Your task to perform on an android device: Search for alienware area 51 on ebay.com, select the first entry, and add it to the cart. Image 0: 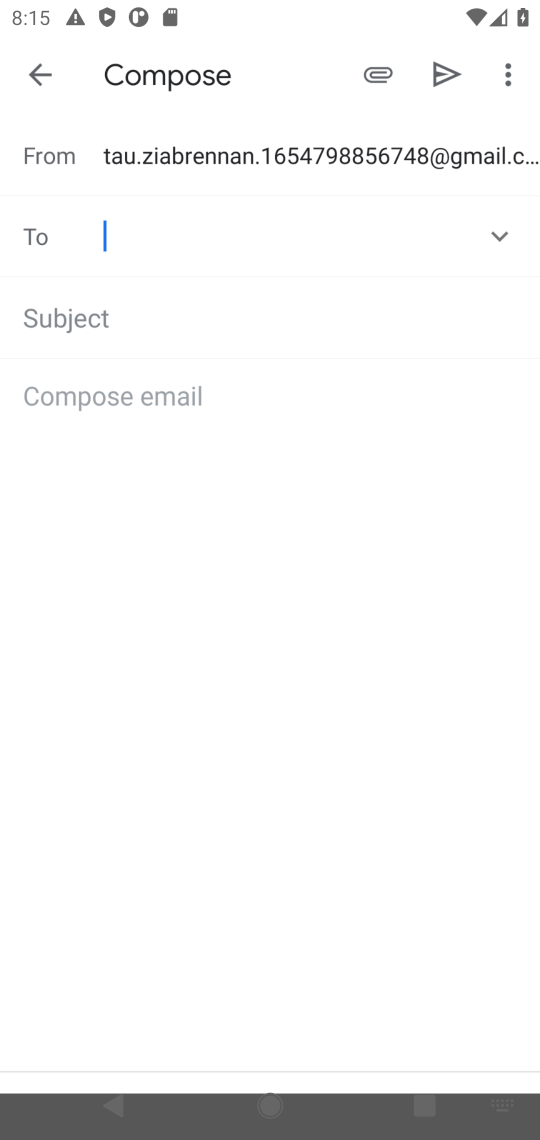
Step 0: drag from (292, 960) to (330, 214)
Your task to perform on an android device: Search for alienware area 51 on ebay.com, select the first entry, and add it to the cart. Image 1: 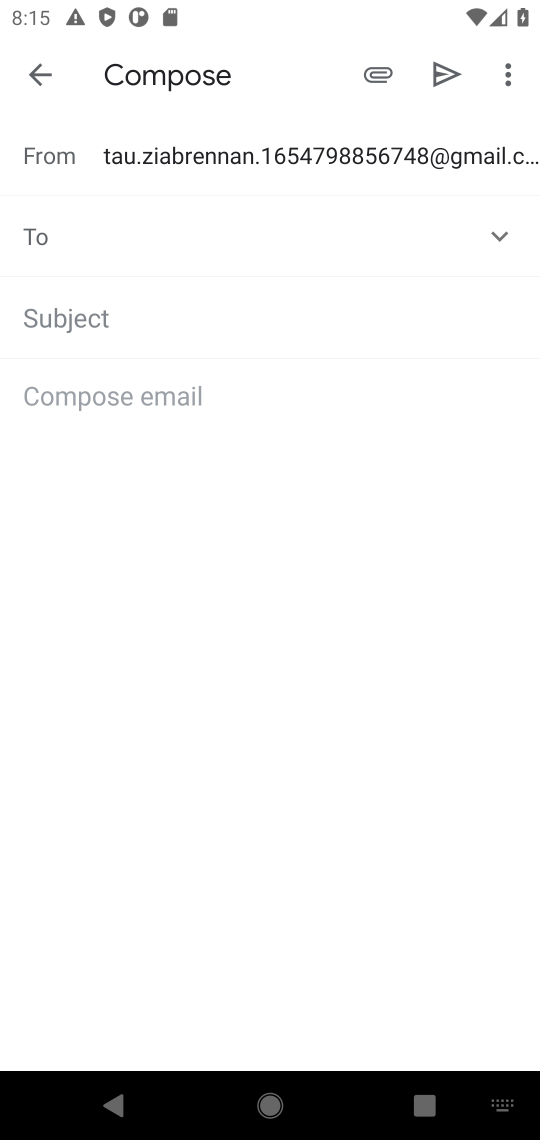
Step 1: press home button
Your task to perform on an android device: Search for alienware area 51 on ebay.com, select the first entry, and add it to the cart. Image 2: 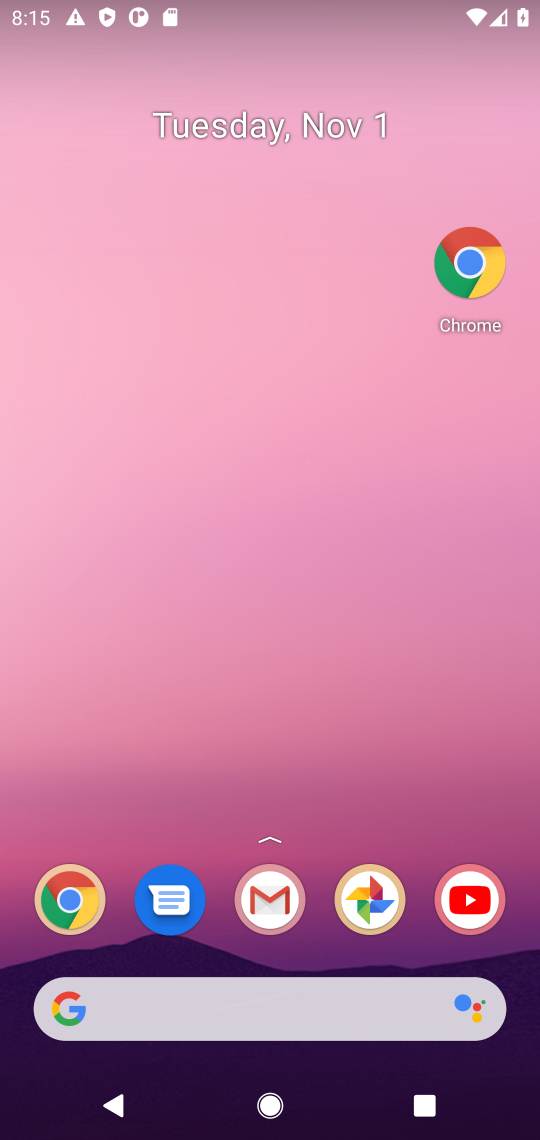
Step 2: drag from (306, 911) to (393, 334)
Your task to perform on an android device: Search for alienware area 51 on ebay.com, select the first entry, and add it to the cart. Image 3: 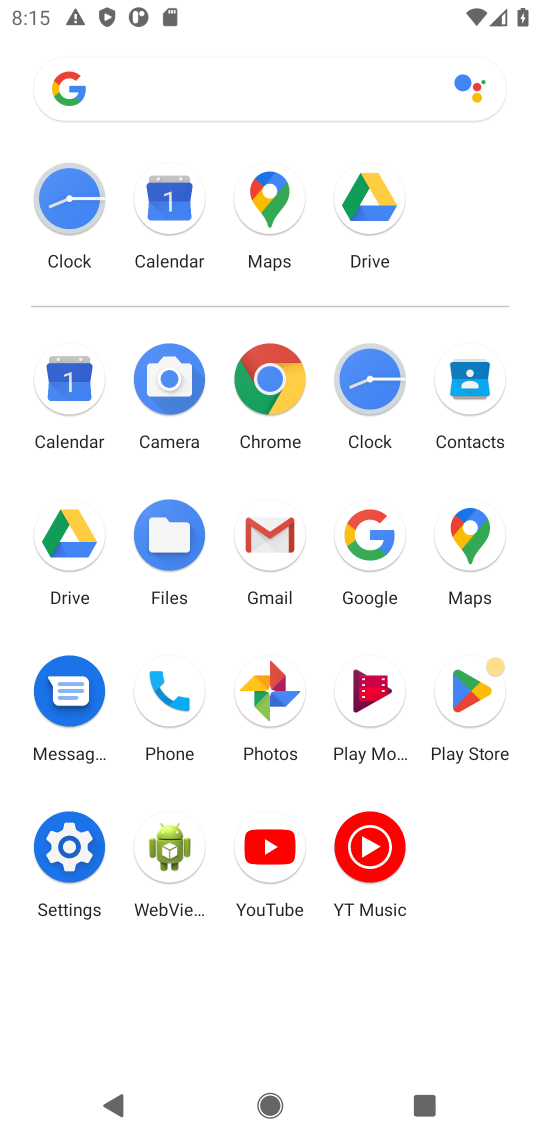
Step 3: click (262, 379)
Your task to perform on an android device: Search for alienware area 51 on ebay.com, select the first entry, and add it to the cart. Image 4: 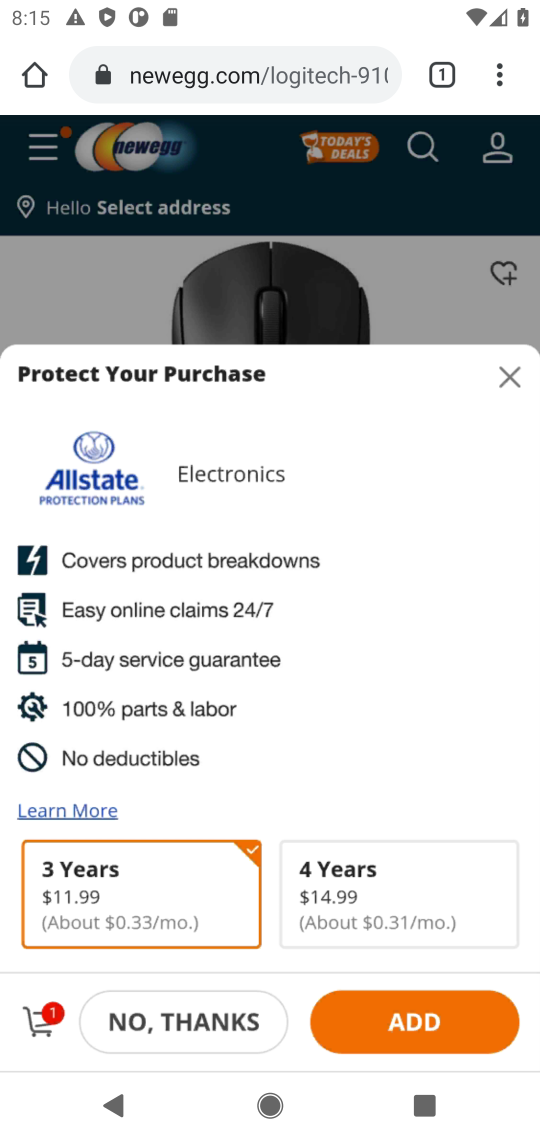
Step 4: click (311, 61)
Your task to perform on an android device: Search for alienware area 51 on ebay.com, select the first entry, and add it to the cart. Image 5: 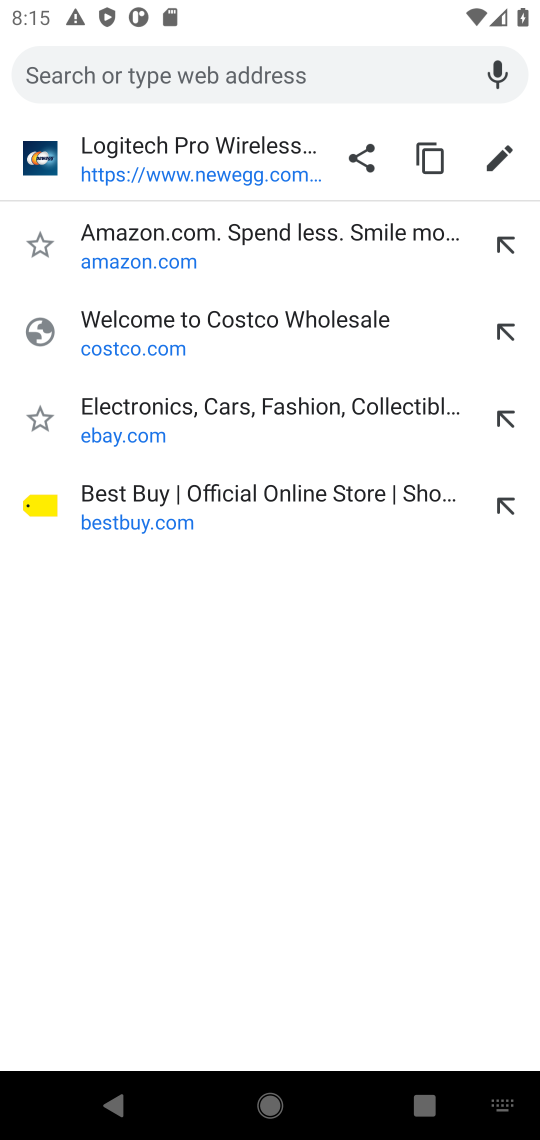
Step 5: type "ebay.com"
Your task to perform on an android device: Search for alienware area 51 on ebay.com, select the first entry, and add it to the cart. Image 6: 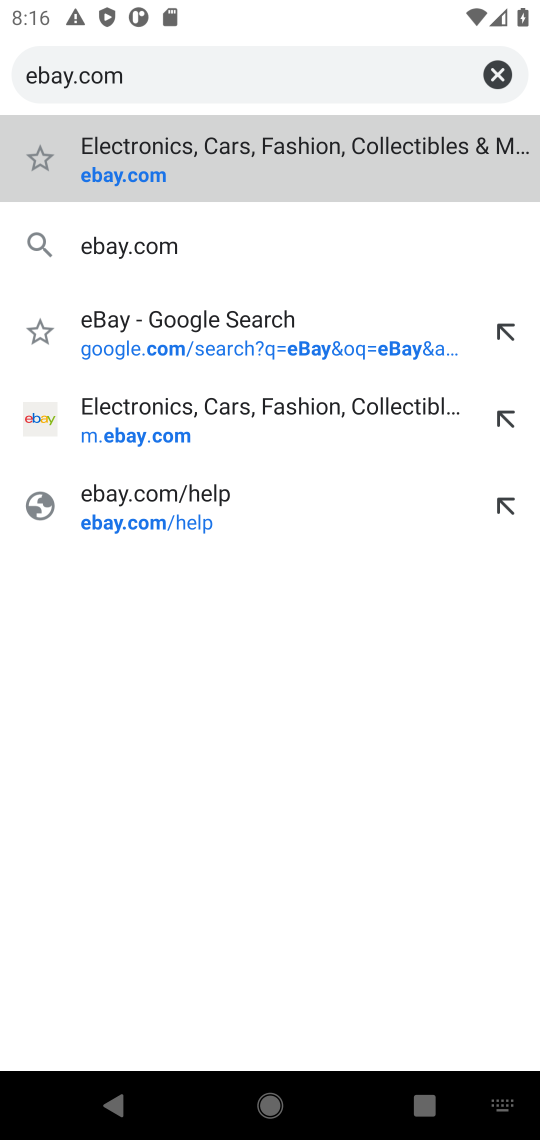
Step 6: press enter
Your task to perform on an android device: Search for alienware area 51 on ebay.com, select the first entry, and add it to the cart. Image 7: 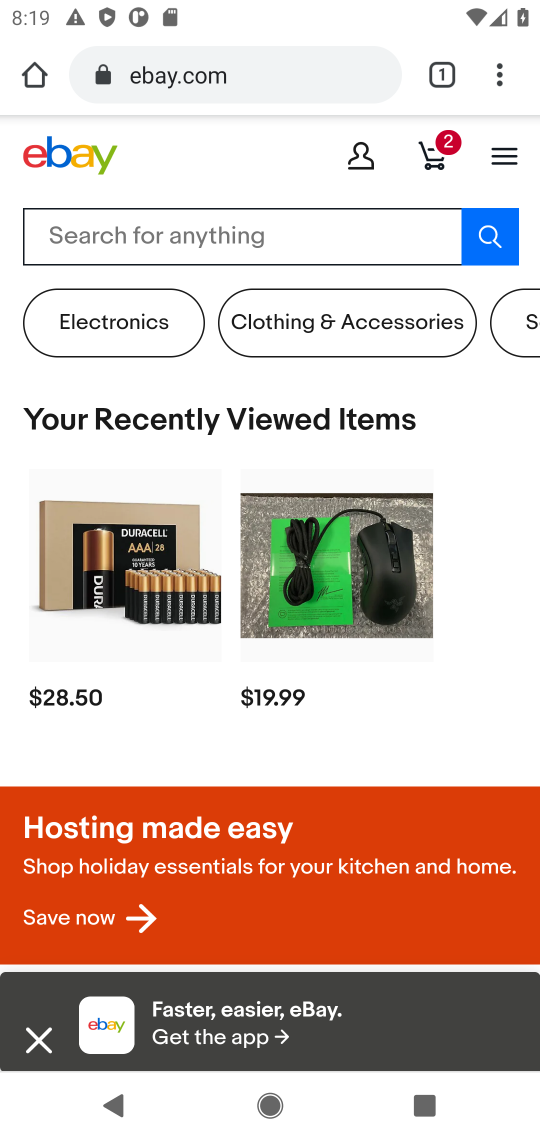
Step 7: click (283, 245)
Your task to perform on an android device: Search for alienware area 51 on ebay.com, select the first entry, and add it to the cart. Image 8: 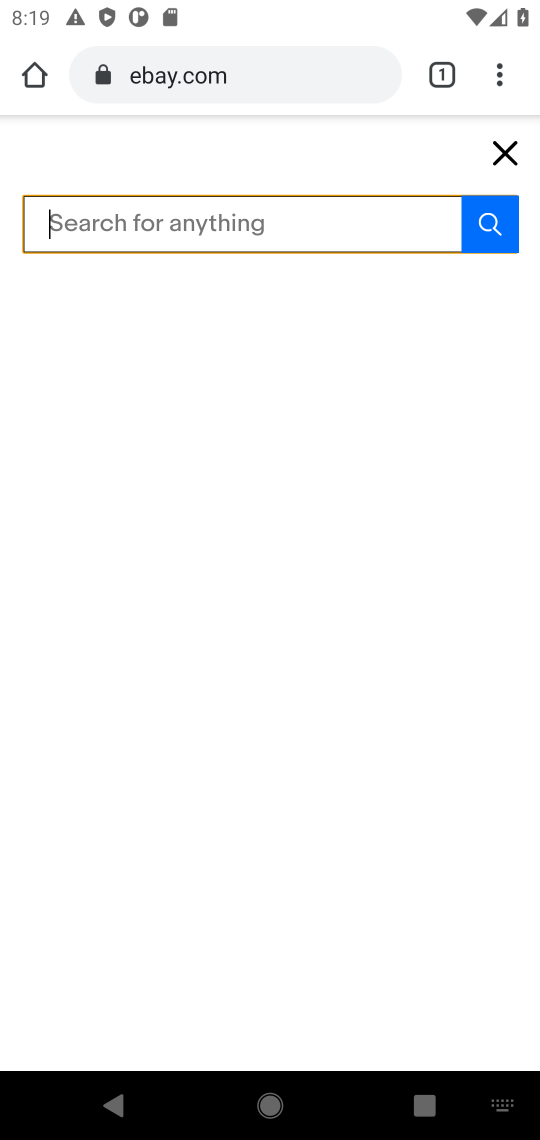
Step 8: type "alienware area 51"
Your task to perform on an android device: Search for alienware area 51 on ebay.com, select the first entry, and add it to the cart. Image 9: 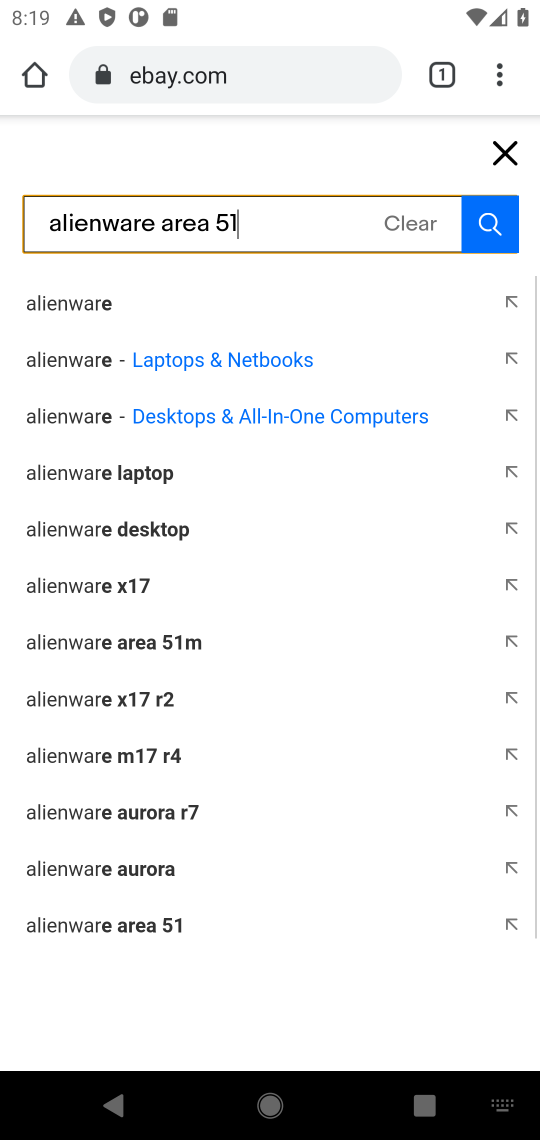
Step 9: press enter
Your task to perform on an android device: Search for alienware area 51 on ebay.com, select the first entry, and add it to the cart. Image 10: 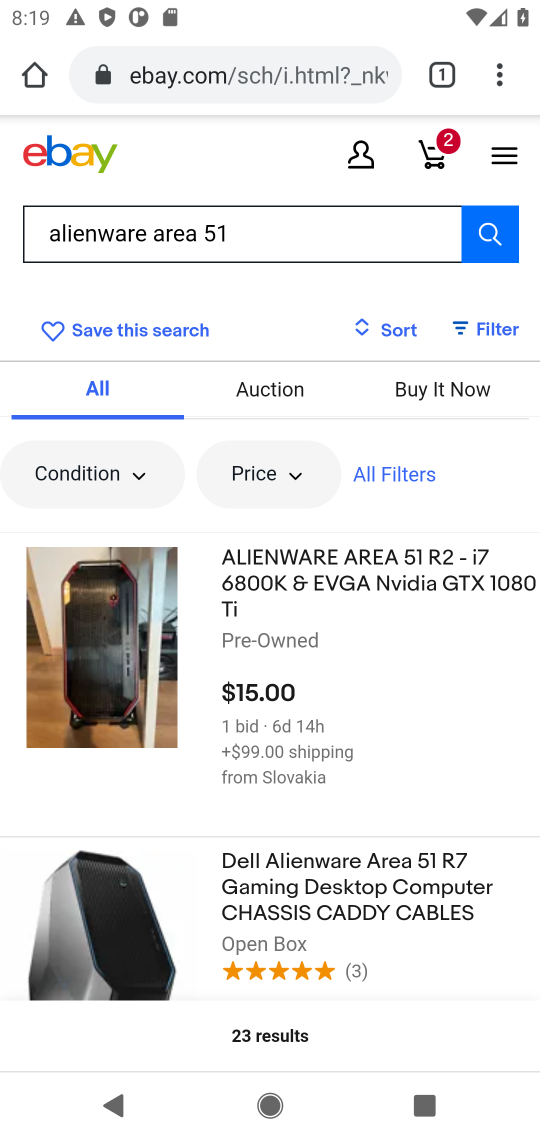
Step 10: click (273, 591)
Your task to perform on an android device: Search for alienware area 51 on ebay.com, select the first entry, and add it to the cart. Image 11: 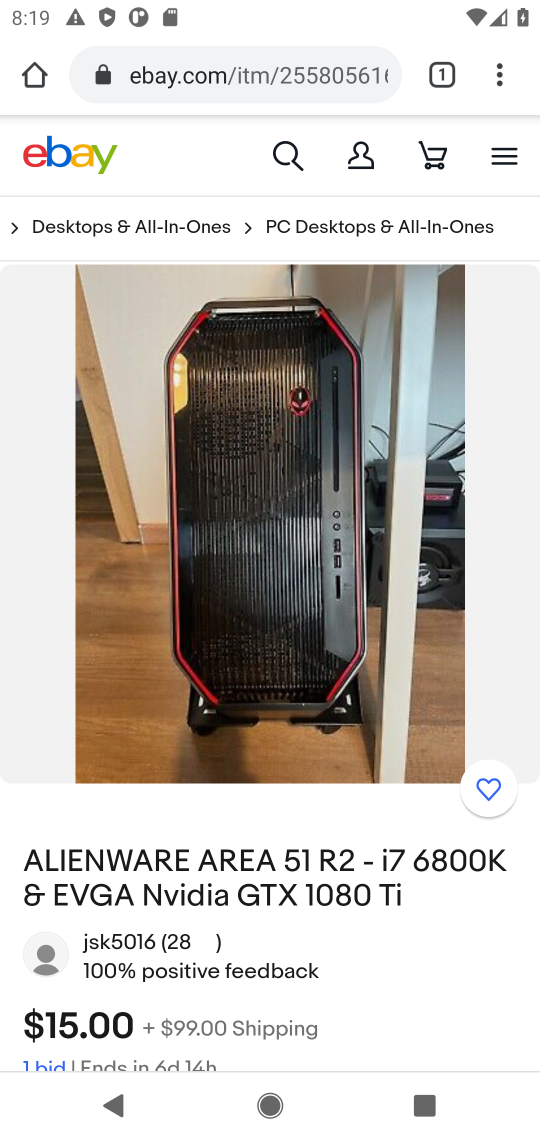
Step 11: task complete